Your task to perform on an android device: delete the emails in spam in the gmail app Image 0: 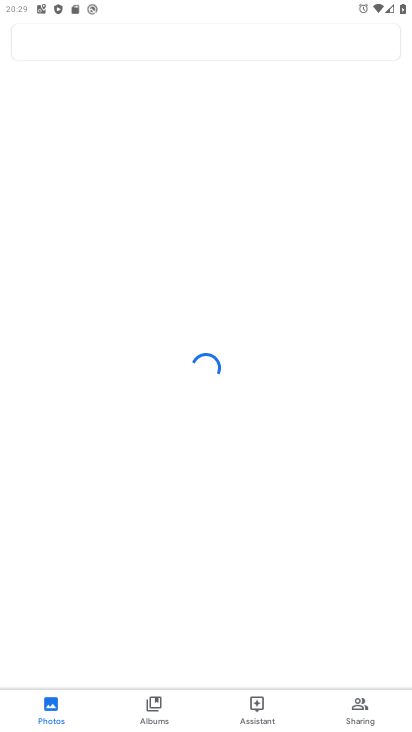
Step 0: drag from (207, 644) to (217, 266)
Your task to perform on an android device: delete the emails in spam in the gmail app Image 1: 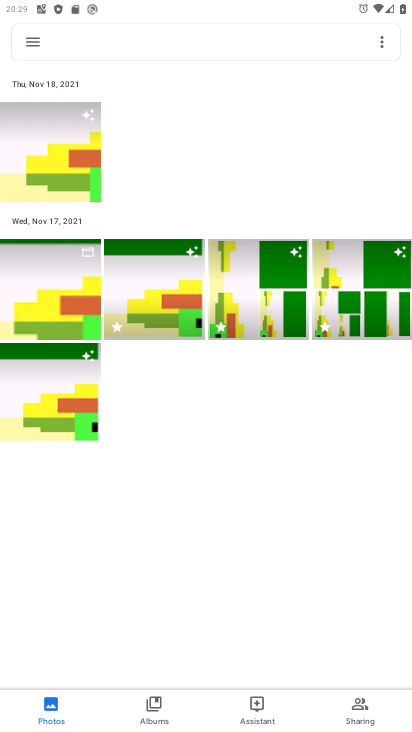
Step 1: press home button
Your task to perform on an android device: delete the emails in spam in the gmail app Image 2: 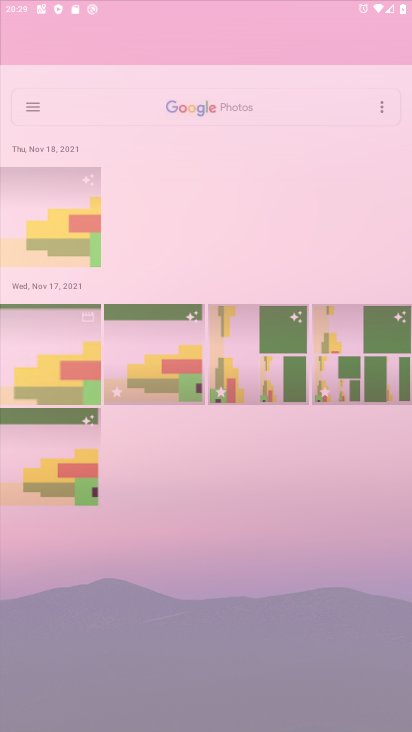
Step 2: drag from (215, 628) to (223, 144)
Your task to perform on an android device: delete the emails in spam in the gmail app Image 3: 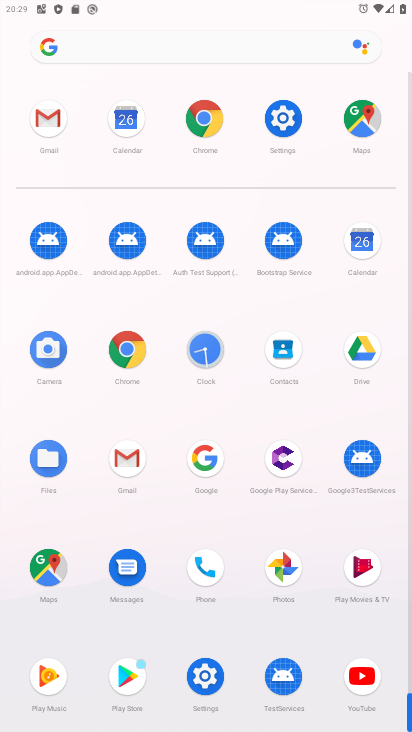
Step 3: click (124, 464)
Your task to perform on an android device: delete the emails in spam in the gmail app Image 4: 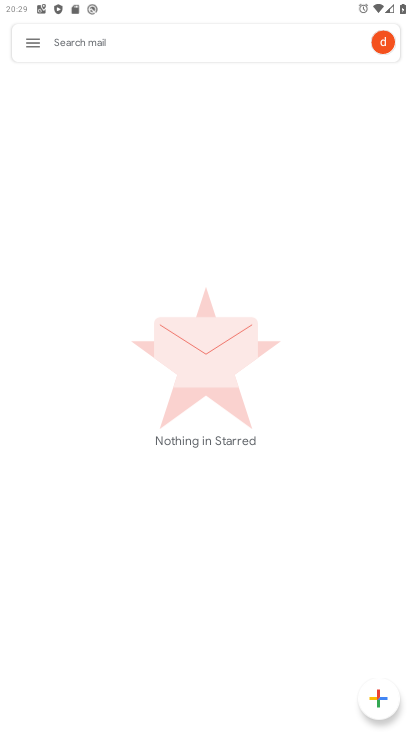
Step 4: drag from (297, 430) to (262, 338)
Your task to perform on an android device: delete the emails in spam in the gmail app Image 5: 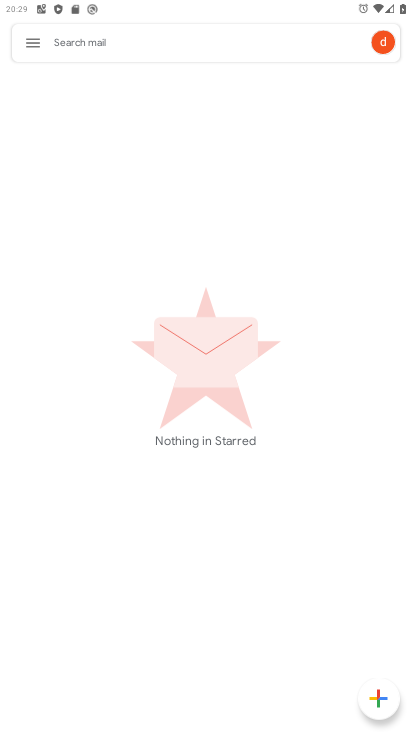
Step 5: click (21, 46)
Your task to perform on an android device: delete the emails in spam in the gmail app Image 6: 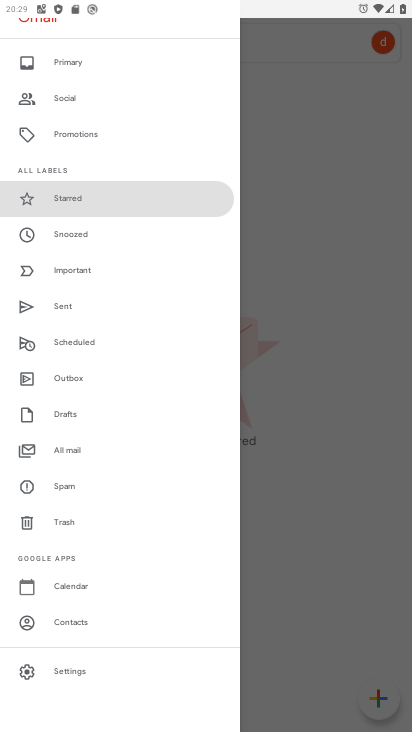
Step 6: click (72, 484)
Your task to perform on an android device: delete the emails in spam in the gmail app Image 7: 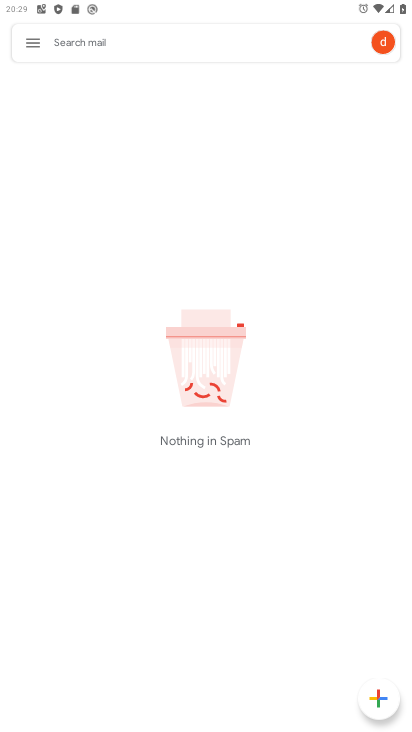
Step 7: task complete